Your task to perform on an android device: Go to network settings Image 0: 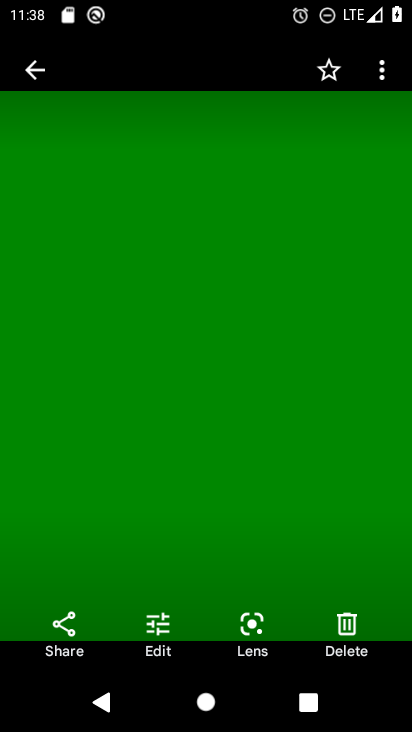
Step 0: press home button
Your task to perform on an android device: Go to network settings Image 1: 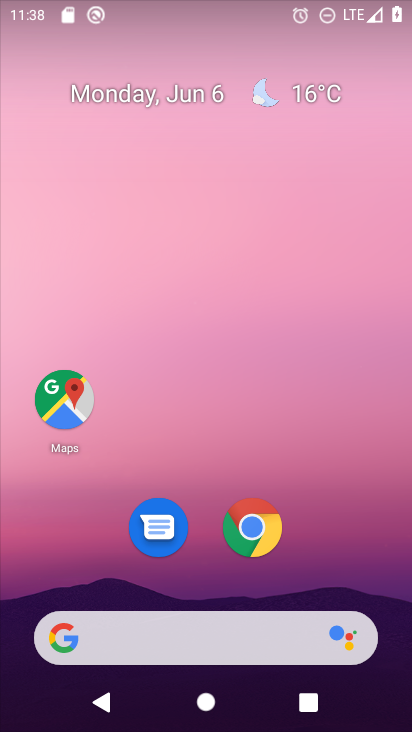
Step 1: drag from (364, 543) to (341, 110)
Your task to perform on an android device: Go to network settings Image 2: 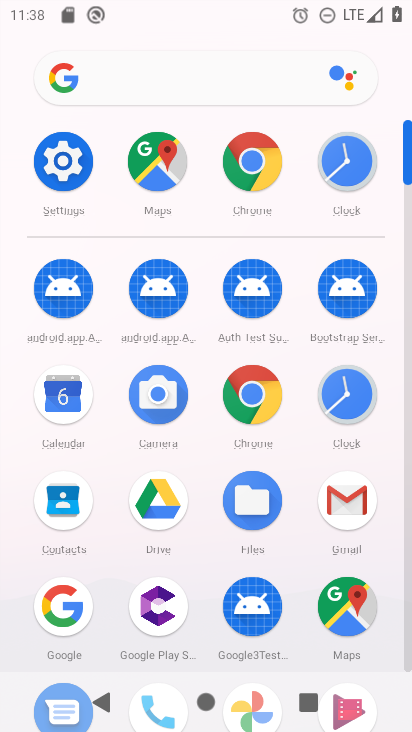
Step 2: click (71, 178)
Your task to perform on an android device: Go to network settings Image 3: 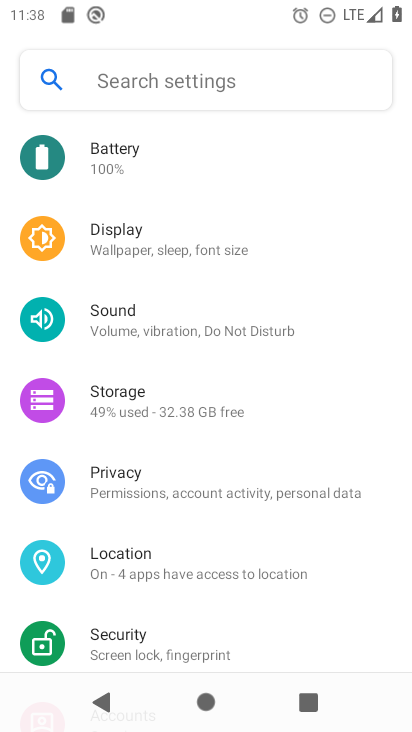
Step 3: drag from (342, 234) to (353, 357)
Your task to perform on an android device: Go to network settings Image 4: 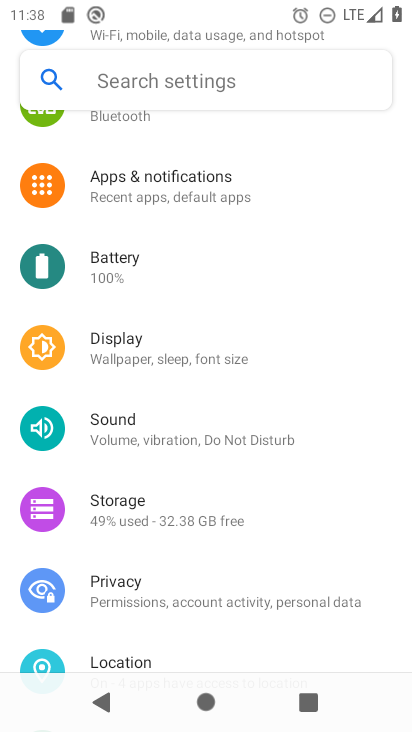
Step 4: drag from (322, 184) to (346, 345)
Your task to perform on an android device: Go to network settings Image 5: 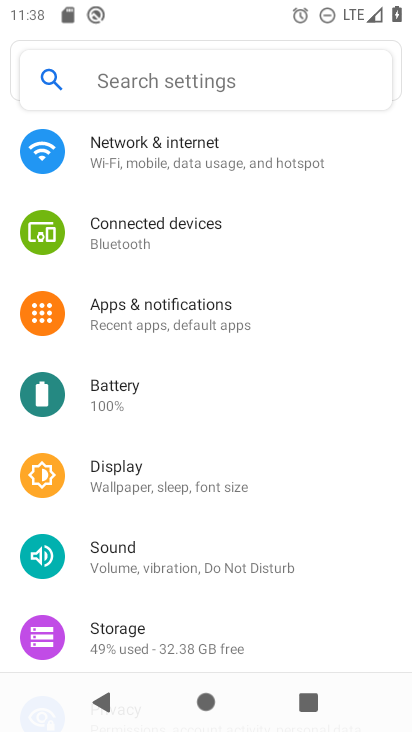
Step 5: drag from (319, 253) to (327, 439)
Your task to perform on an android device: Go to network settings Image 6: 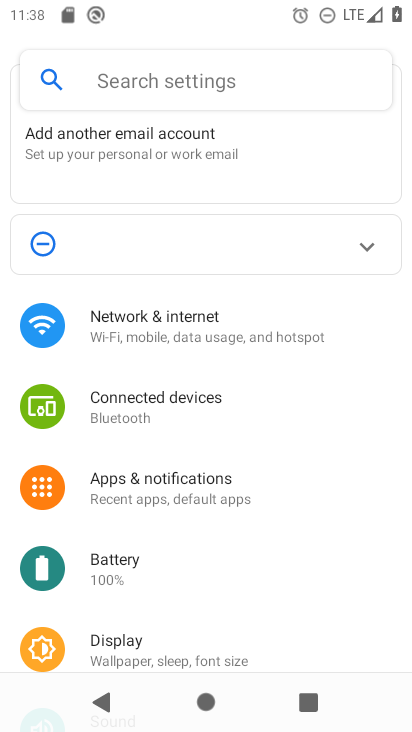
Step 6: click (236, 339)
Your task to perform on an android device: Go to network settings Image 7: 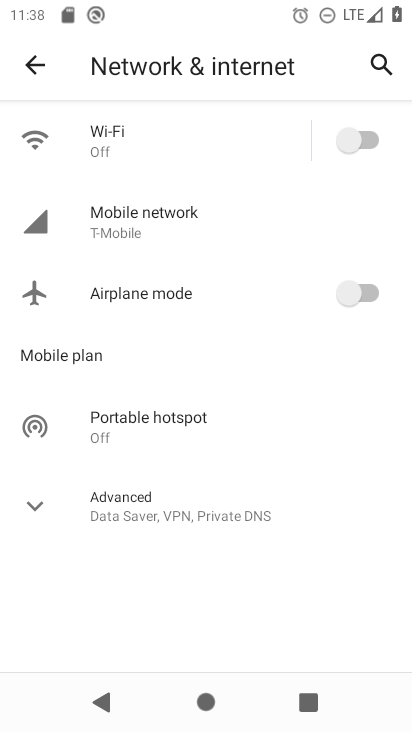
Step 7: task complete